Your task to perform on an android device: uninstall "Spotify: Music and Podcasts" Image 0: 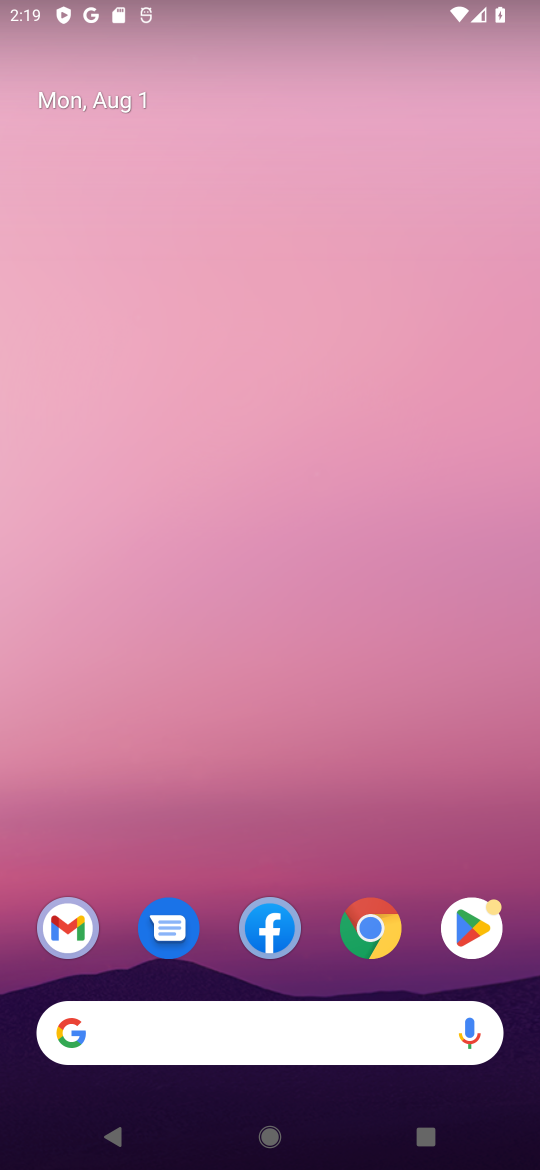
Step 0: press home button
Your task to perform on an android device: uninstall "Spotify: Music and Podcasts" Image 1: 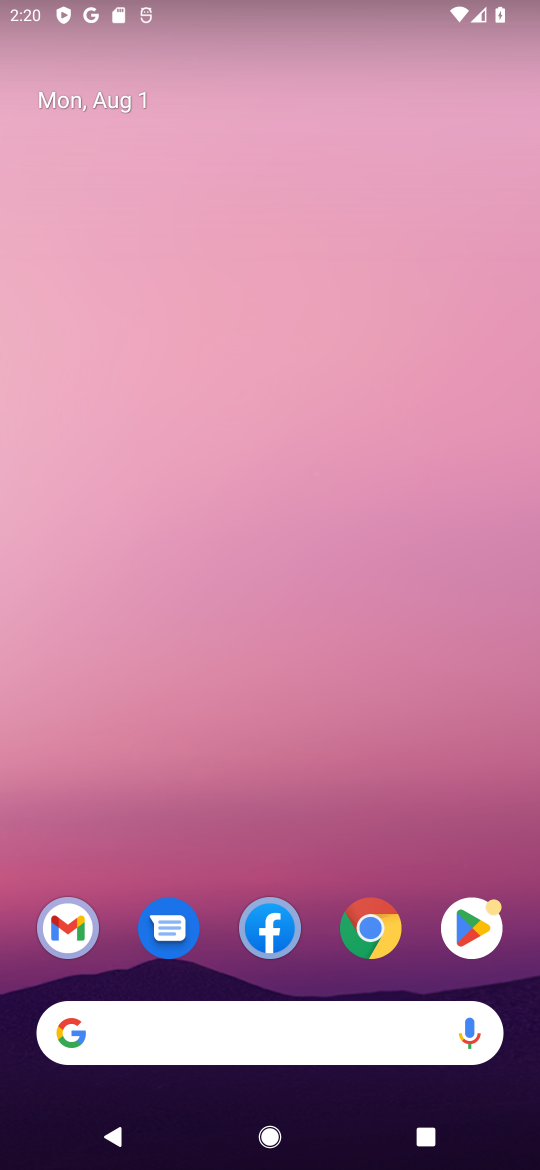
Step 1: press home button
Your task to perform on an android device: uninstall "Spotify: Music and Podcasts" Image 2: 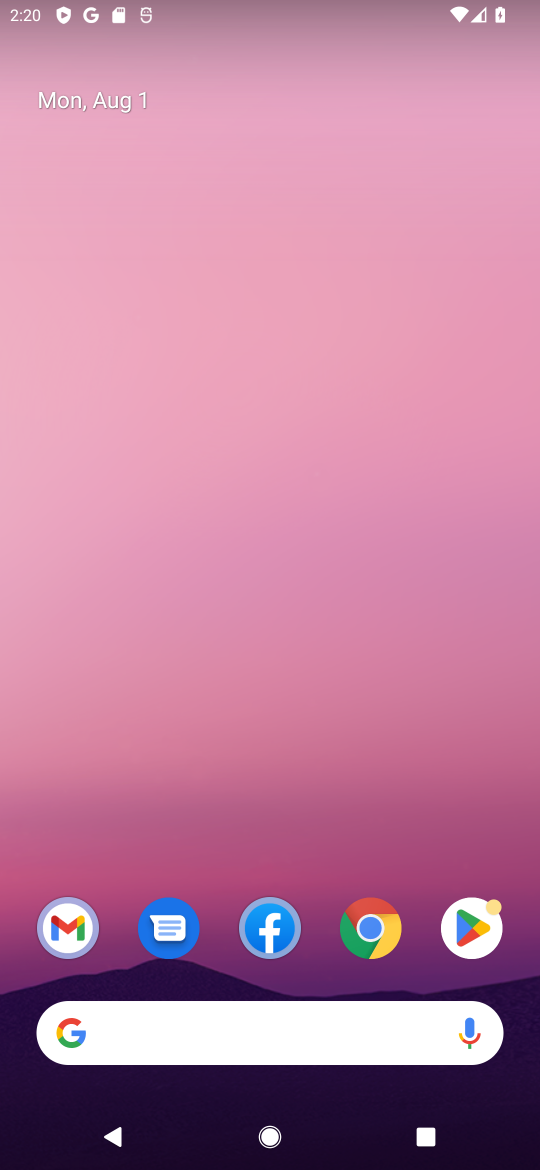
Step 2: click (461, 954)
Your task to perform on an android device: uninstall "Spotify: Music and Podcasts" Image 3: 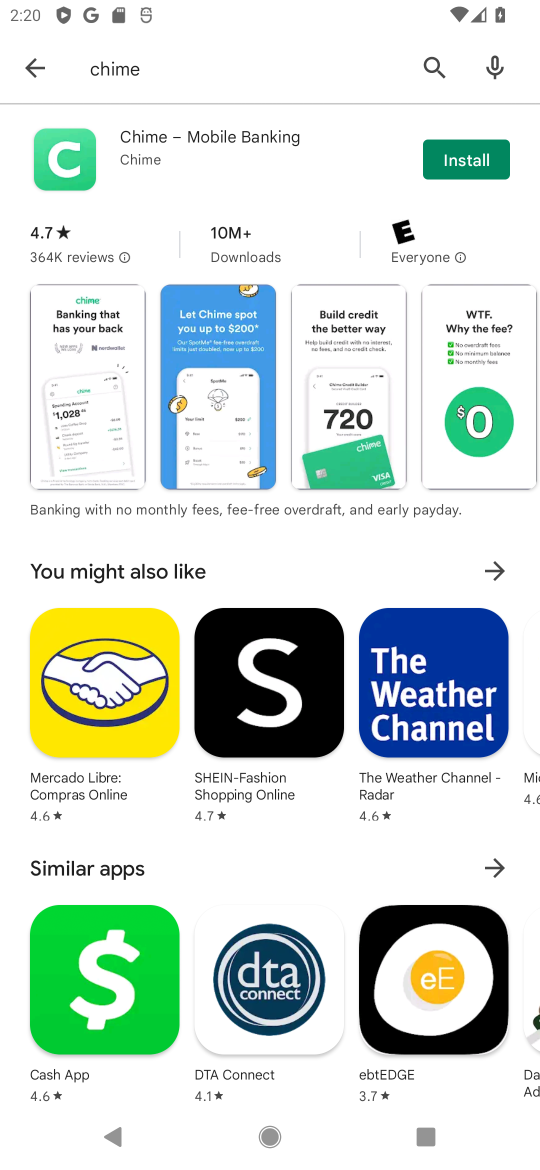
Step 3: click (446, 63)
Your task to perform on an android device: uninstall "Spotify: Music and Podcasts" Image 4: 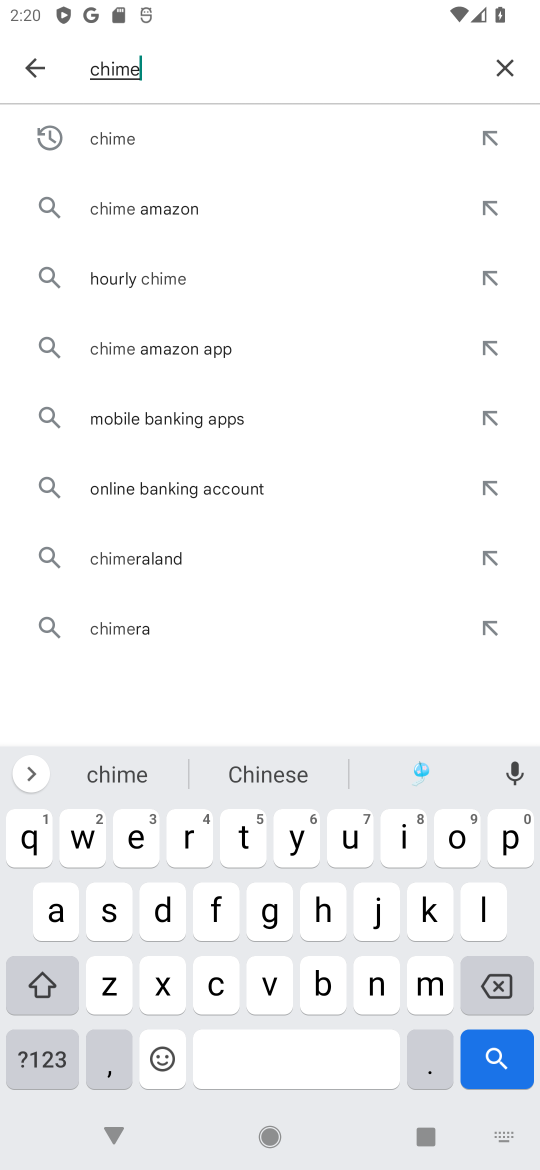
Step 4: click (503, 65)
Your task to perform on an android device: uninstall "Spotify: Music and Podcasts" Image 5: 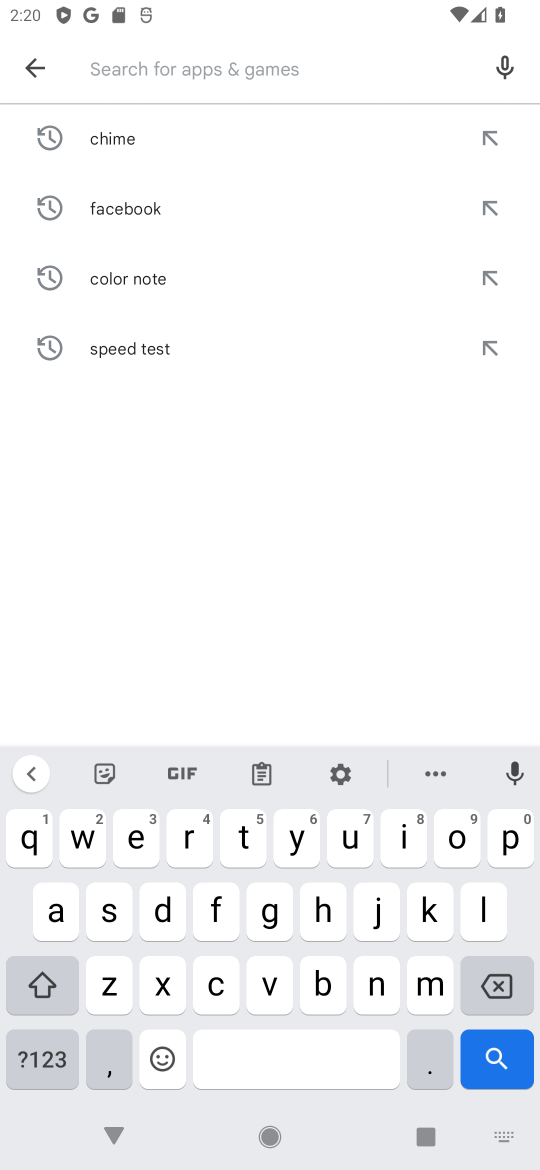
Step 5: click (105, 915)
Your task to perform on an android device: uninstall "Spotify: Music and Podcasts" Image 6: 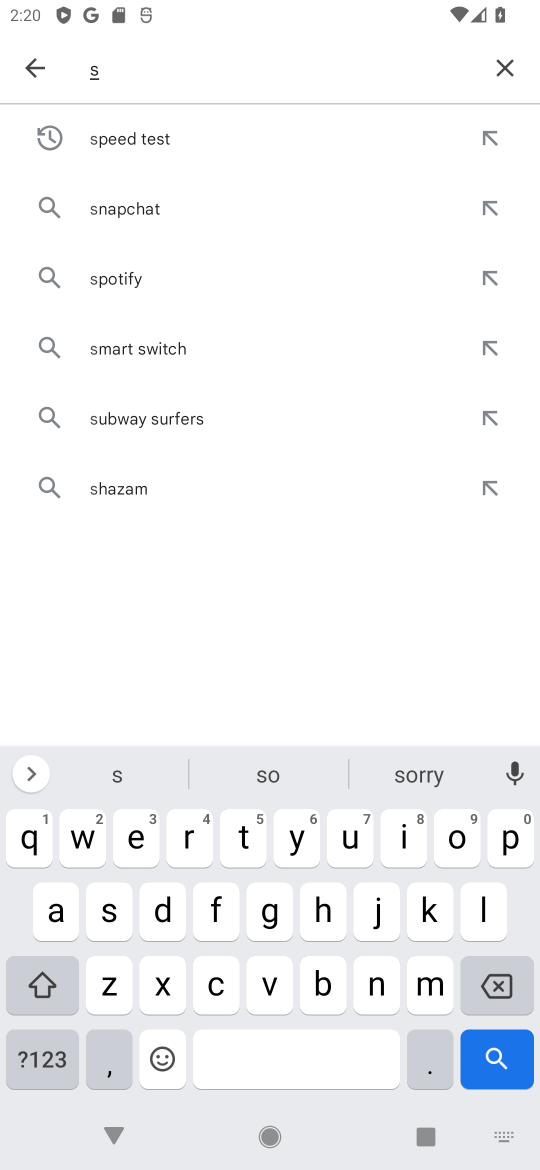
Step 6: click (498, 847)
Your task to perform on an android device: uninstall "Spotify: Music and Podcasts" Image 7: 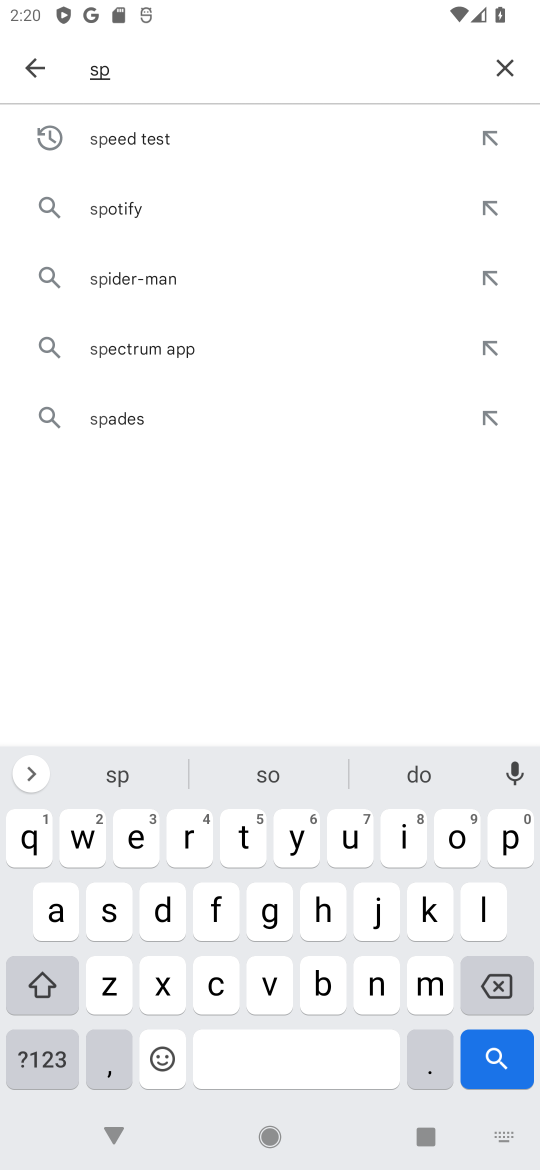
Step 7: click (135, 203)
Your task to perform on an android device: uninstall "Spotify: Music and Podcasts" Image 8: 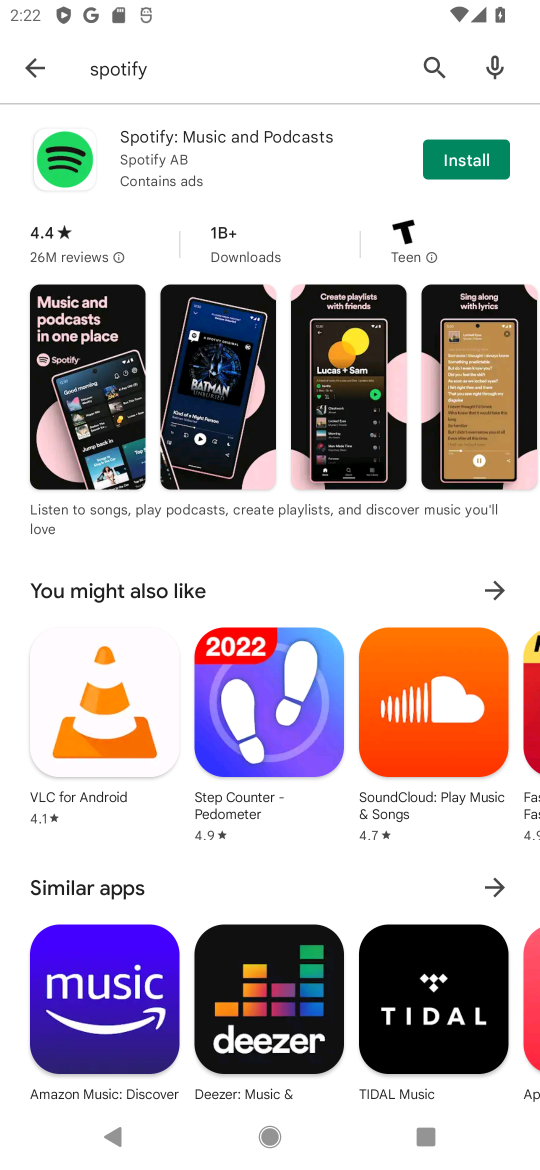
Step 8: task complete